Your task to perform on an android device: Go to location settings Image 0: 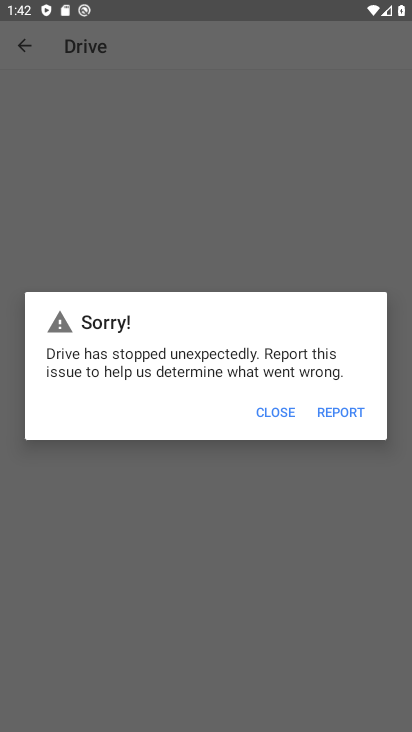
Step 0: press home button
Your task to perform on an android device: Go to location settings Image 1: 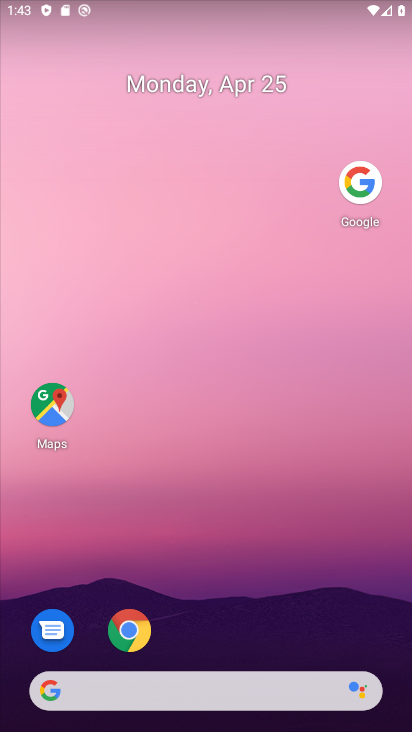
Step 1: drag from (214, 660) to (203, 21)
Your task to perform on an android device: Go to location settings Image 2: 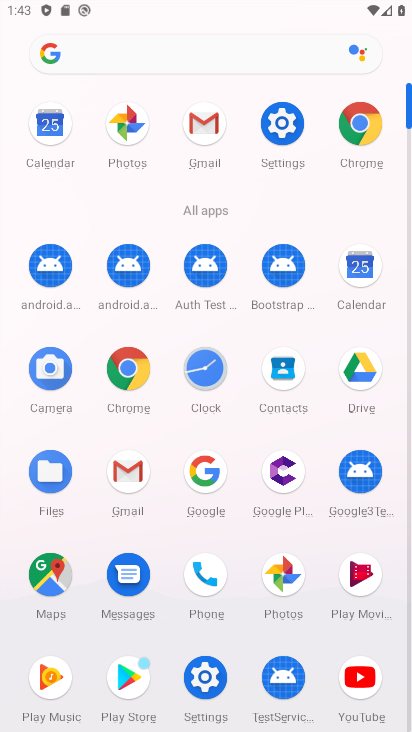
Step 2: click (209, 675)
Your task to perform on an android device: Go to location settings Image 3: 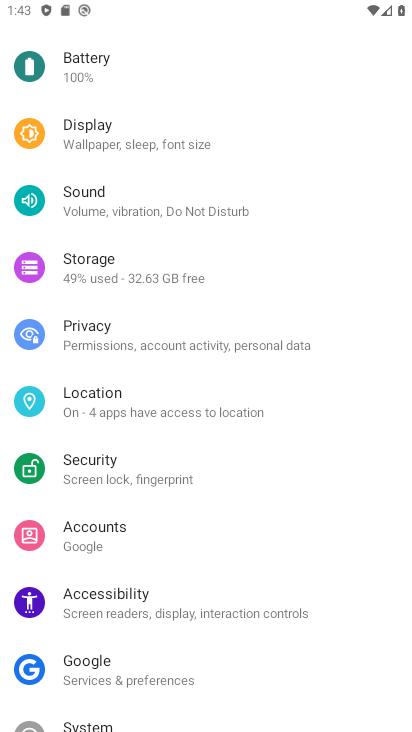
Step 3: click (120, 407)
Your task to perform on an android device: Go to location settings Image 4: 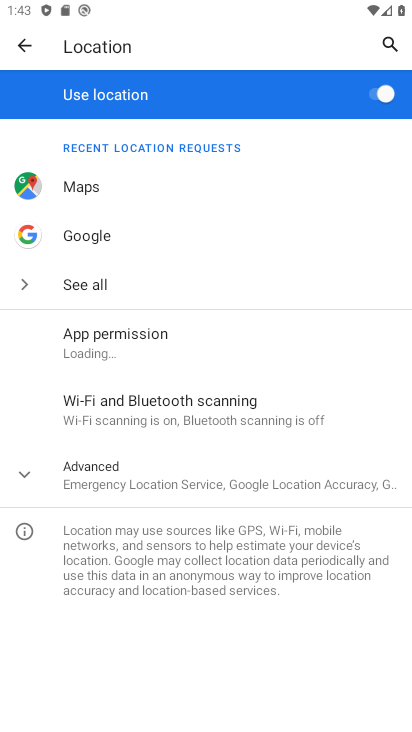
Step 4: click (109, 479)
Your task to perform on an android device: Go to location settings Image 5: 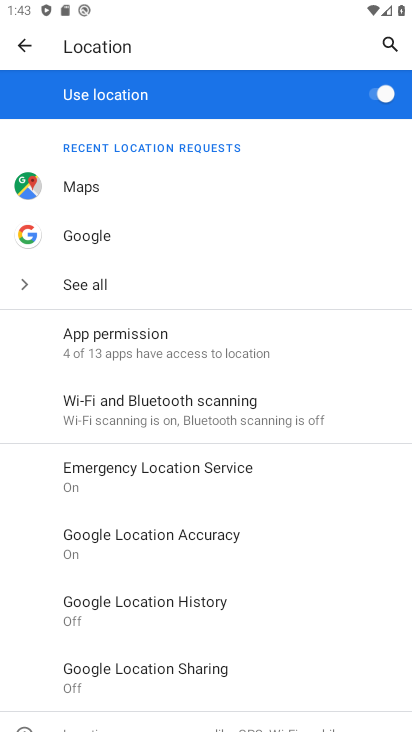
Step 5: task complete